Your task to perform on an android device: Check out the best rated 4k TV on Best Buy. Image 0: 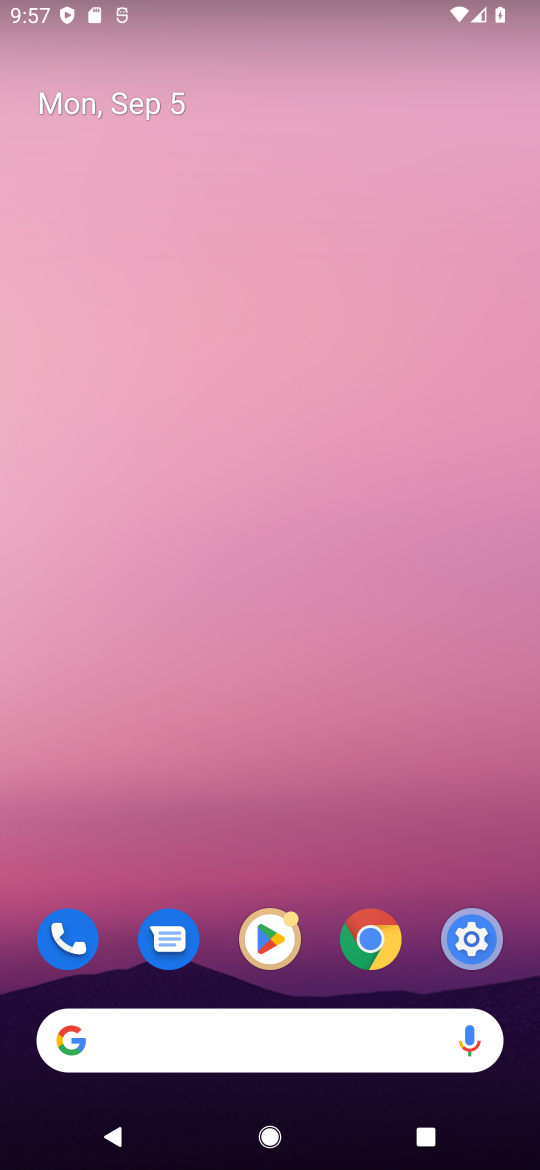
Step 0: drag from (319, 671) to (318, 29)
Your task to perform on an android device: Check out the best rated 4k TV on Best Buy. Image 1: 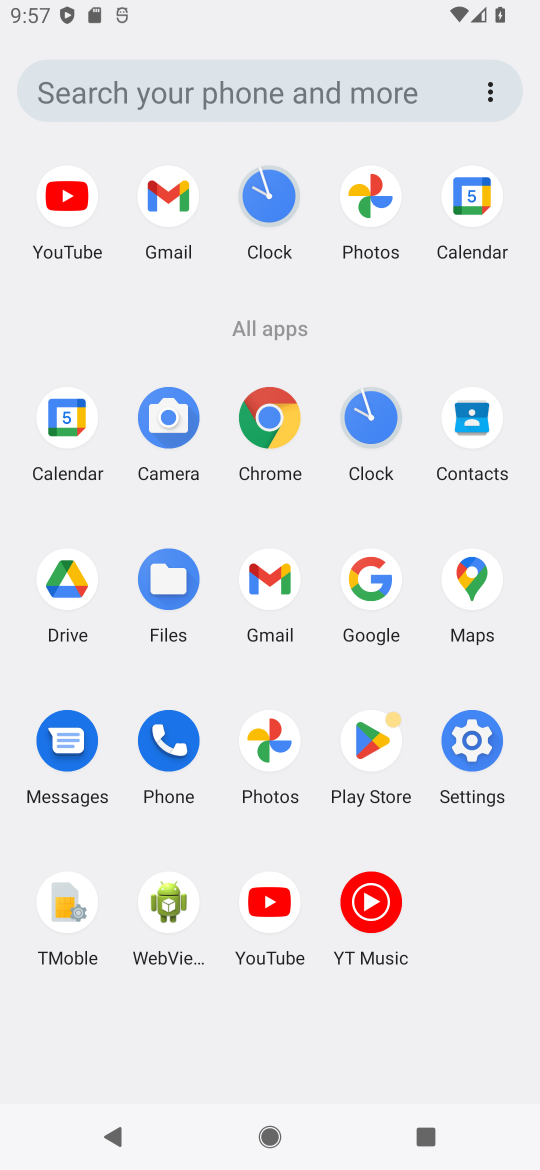
Step 1: drag from (273, 580) to (533, 554)
Your task to perform on an android device: Check out the best rated 4k TV on Best Buy. Image 2: 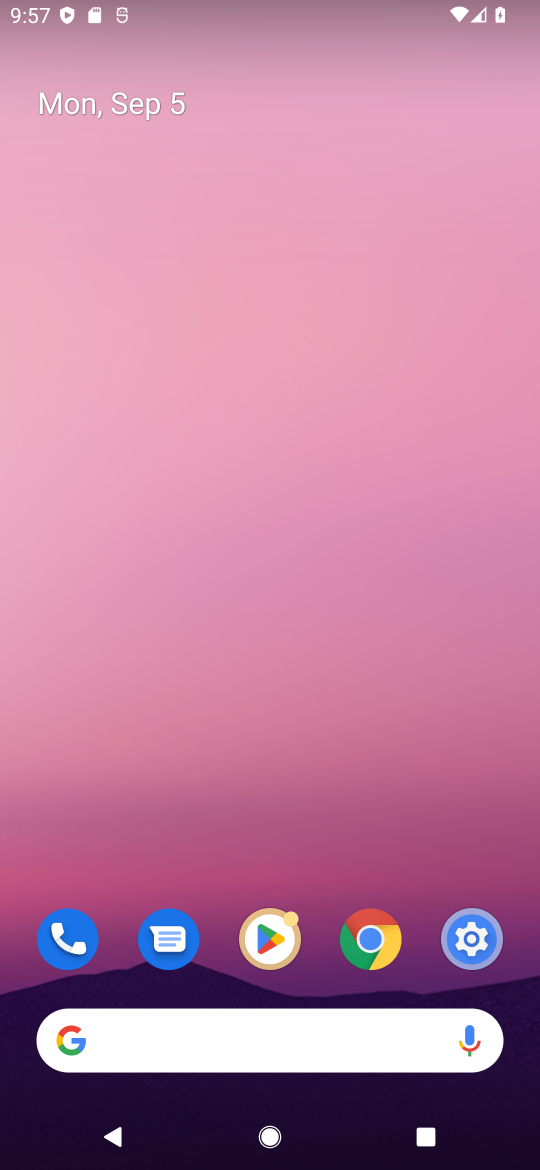
Step 2: drag from (317, 962) to (407, 41)
Your task to perform on an android device: Check out the best rated 4k TV on Best Buy. Image 3: 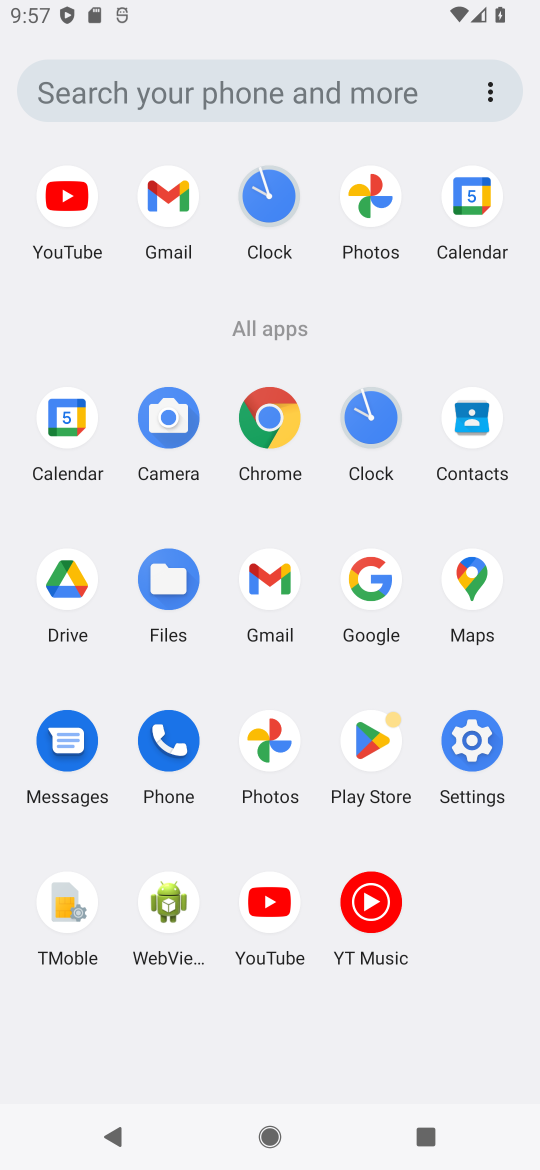
Step 3: click (281, 430)
Your task to perform on an android device: Check out the best rated 4k TV on Best Buy. Image 4: 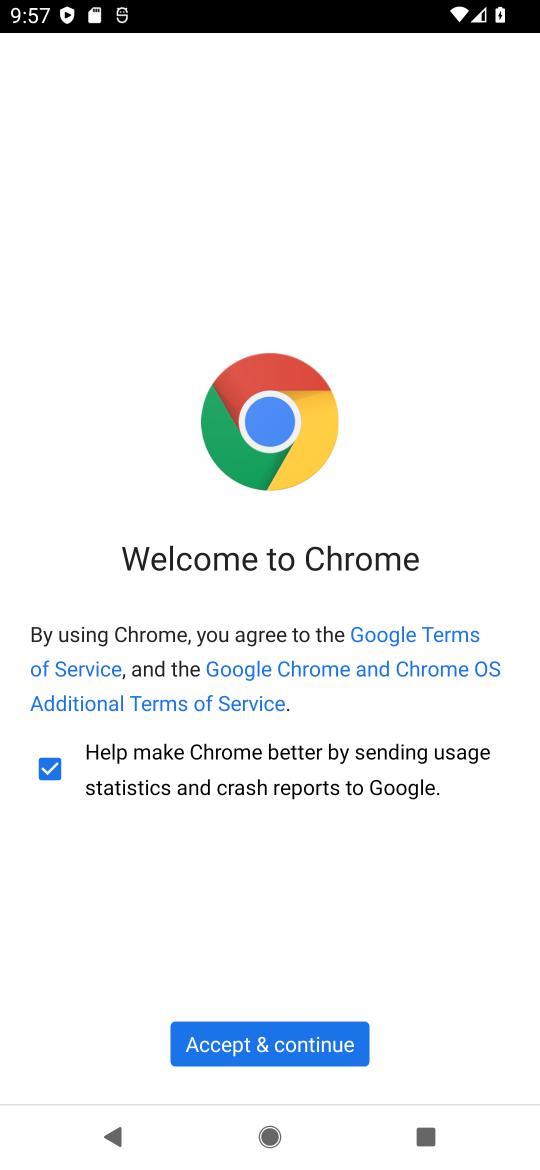
Step 4: click (234, 1052)
Your task to perform on an android device: Check out the best rated 4k TV on Best Buy. Image 5: 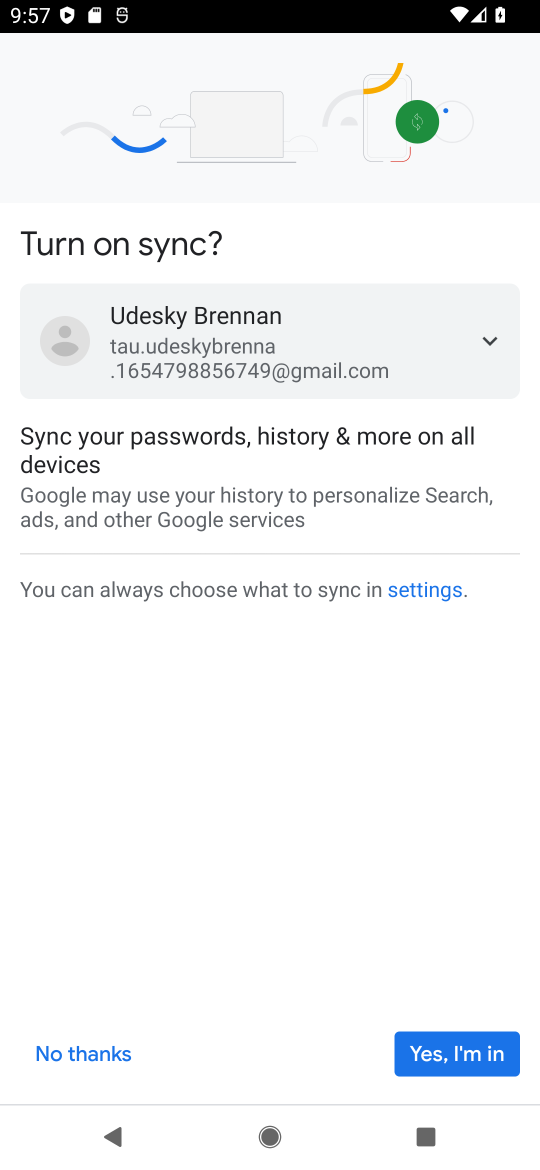
Step 5: click (431, 1064)
Your task to perform on an android device: Check out the best rated 4k TV on Best Buy. Image 6: 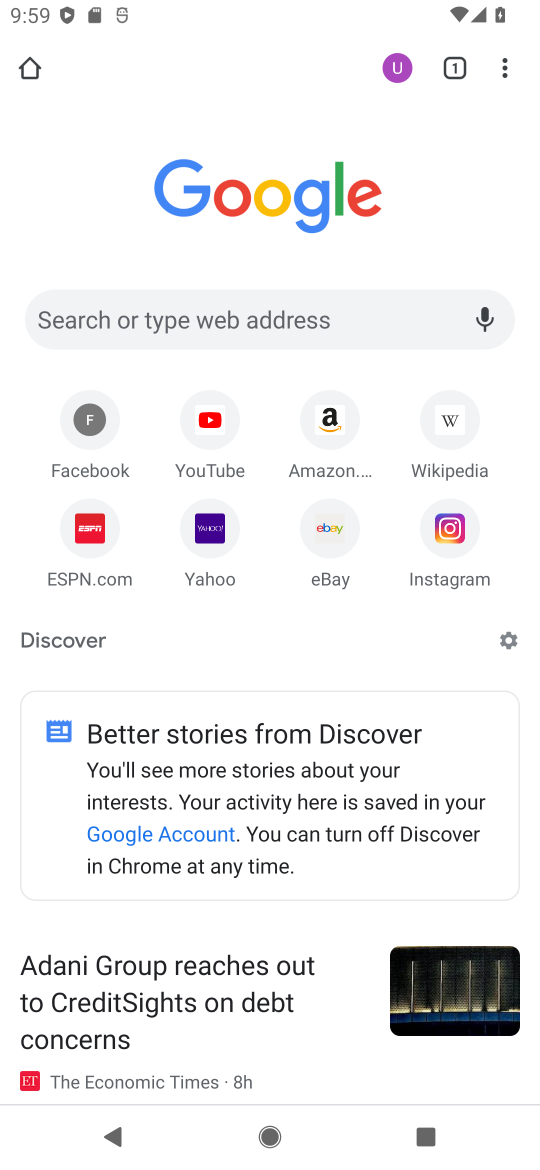
Step 6: click (224, 315)
Your task to perform on an android device: Check out the best rated 4k TV on Best Buy. Image 7: 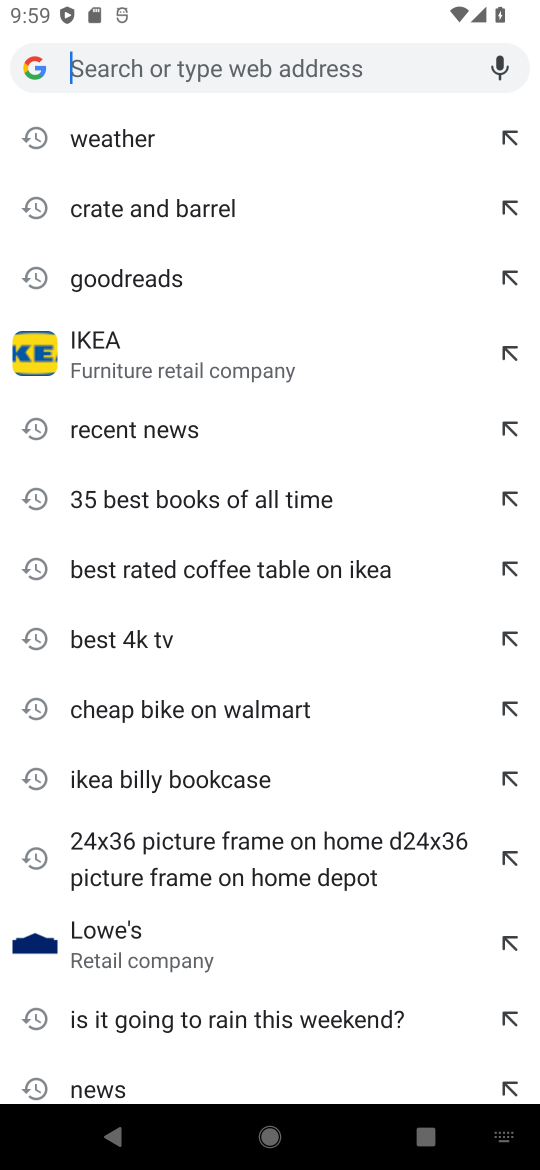
Step 7: type " Best Buy"
Your task to perform on an android device: Check out the best rated 4k TV on Best Buy. Image 8: 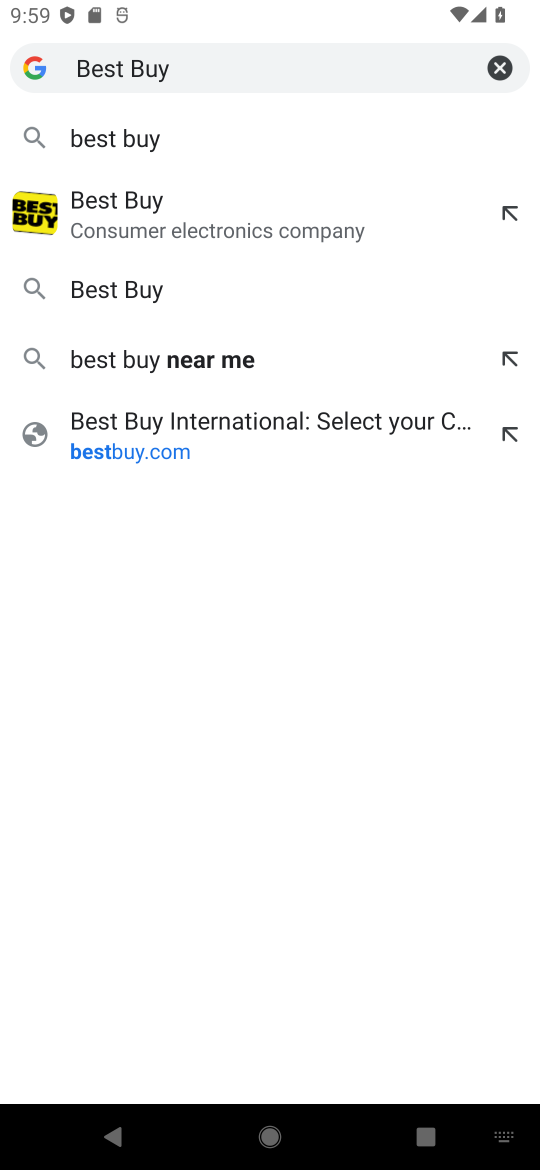
Step 8: click (92, 135)
Your task to perform on an android device: Check out the best rated 4k TV on Best Buy. Image 9: 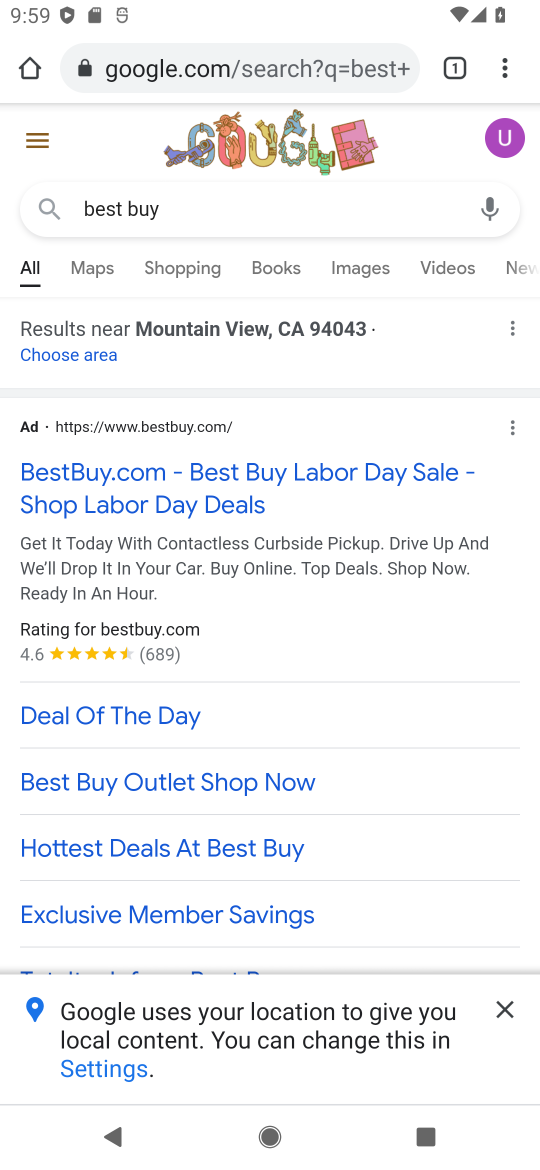
Step 9: click (70, 469)
Your task to perform on an android device: Check out the best rated 4k TV on Best Buy. Image 10: 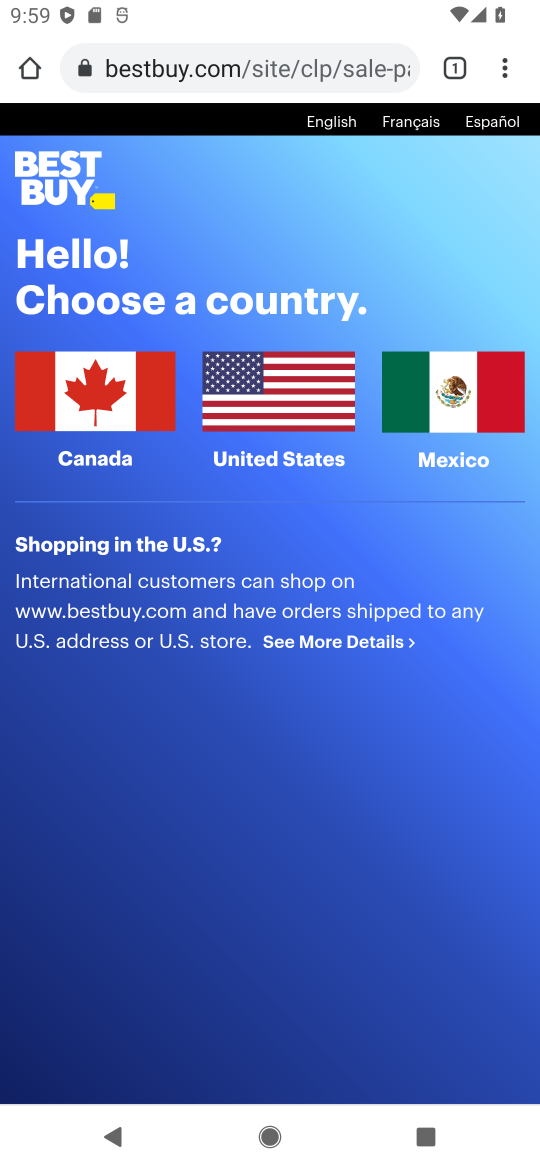
Step 10: task complete